Your task to perform on an android device: Open Reddit.com Image 0: 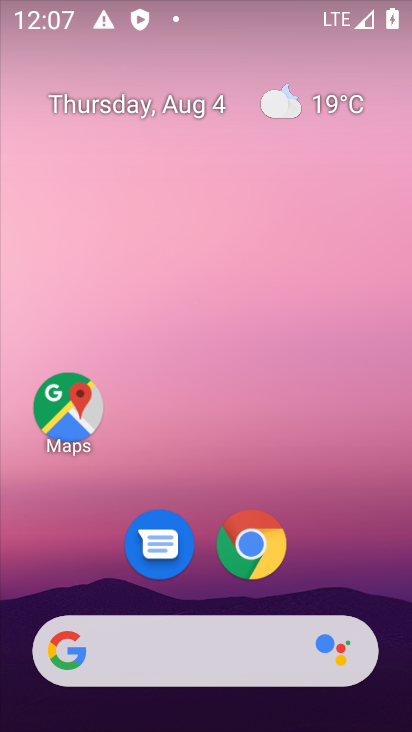
Step 0: click (246, 539)
Your task to perform on an android device: Open Reddit.com Image 1: 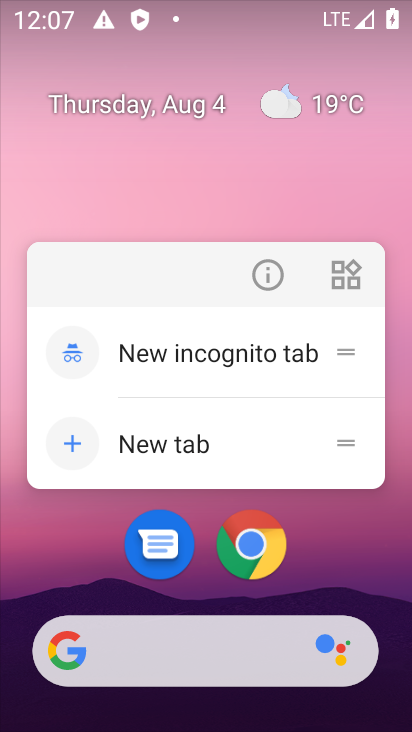
Step 1: click (246, 530)
Your task to perform on an android device: Open Reddit.com Image 2: 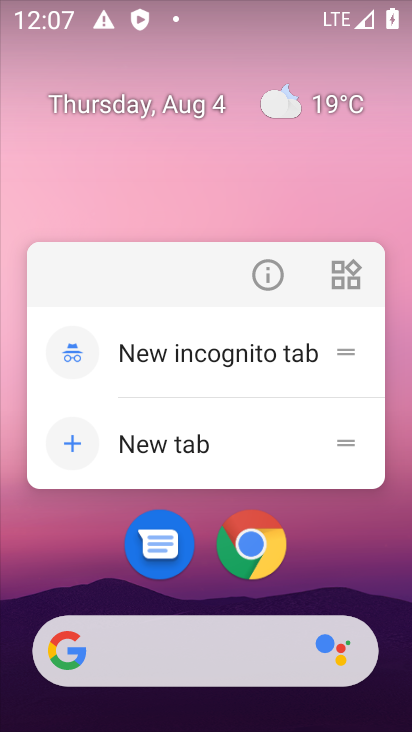
Step 2: click (257, 540)
Your task to perform on an android device: Open Reddit.com Image 3: 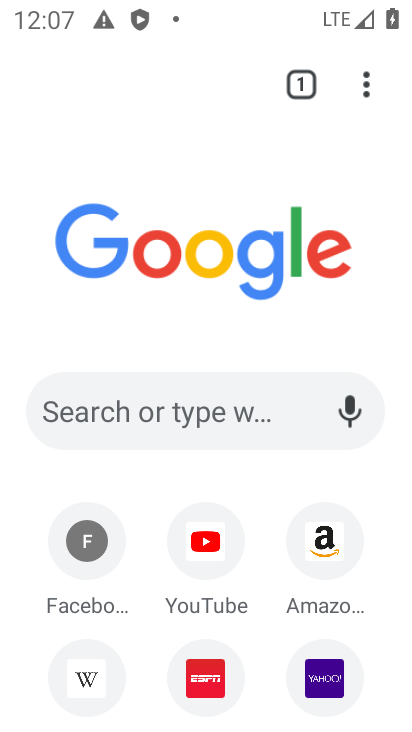
Step 3: click (159, 418)
Your task to perform on an android device: Open Reddit.com Image 4: 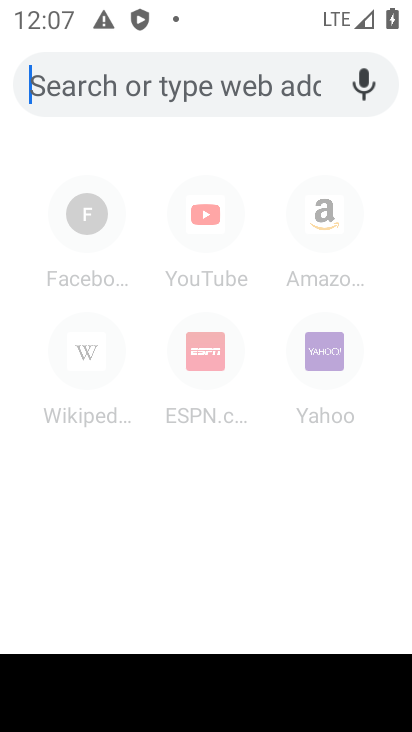
Step 4: type "Reddit.com"
Your task to perform on an android device: Open Reddit.com Image 5: 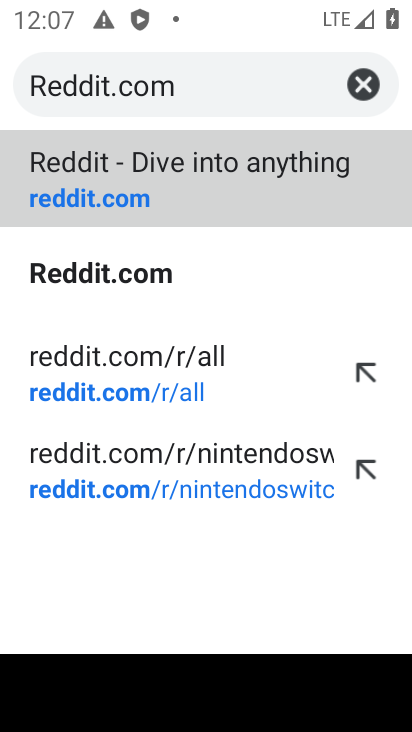
Step 5: click (149, 277)
Your task to perform on an android device: Open Reddit.com Image 6: 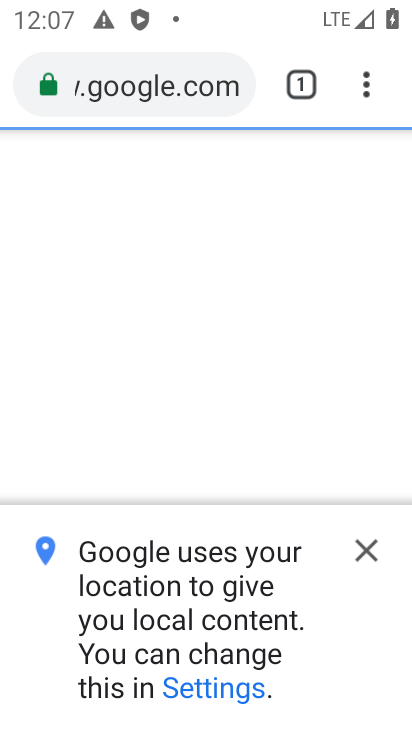
Step 6: click (377, 549)
Your task to perform on an android device: Open Reddit.com Image 7: 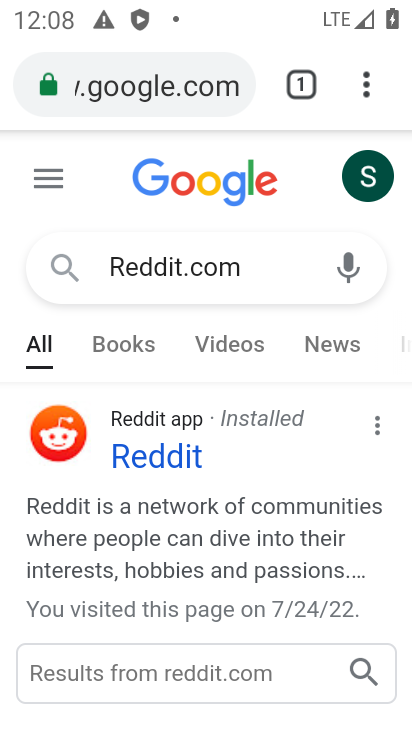
Step 7: task complete